Your task to perform on an android device: Open Google Chrome and open the bookmarks view Image 0: 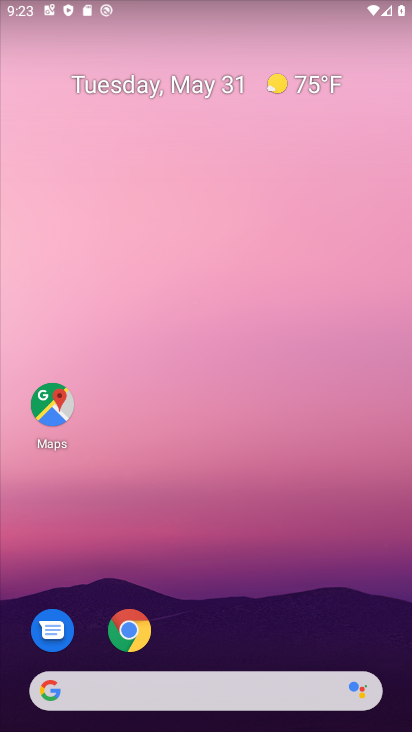
Step 0: drag from (190, 658) to (268, 175)
Your task to perform on an android device: Open Google Chrome and open the bookmarks view Image 1: 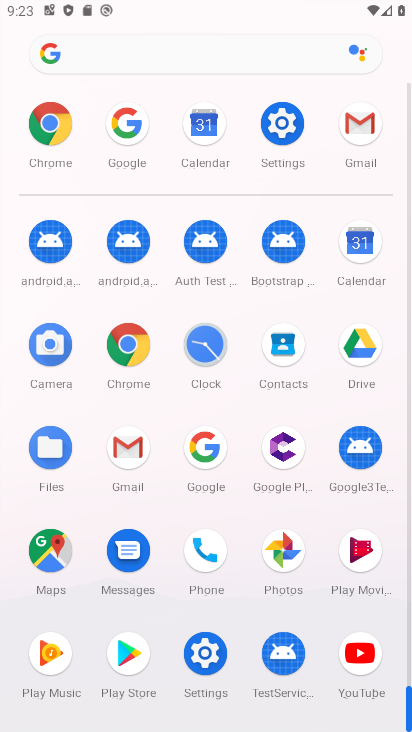
Step 1: click (132, 355)
Your task to perform on an android device: Open Google Chrome and open the bookmarks view Image 2: 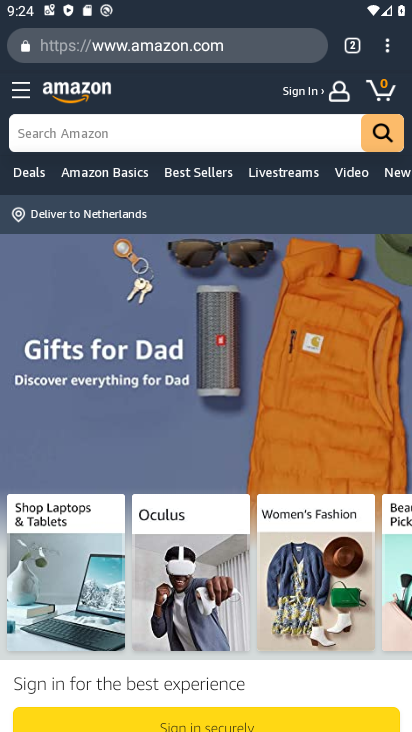
Step 2: click (389, 53)
Your task to perform on an android device: Open Google Chrome and open the bookmarks view Image 3: 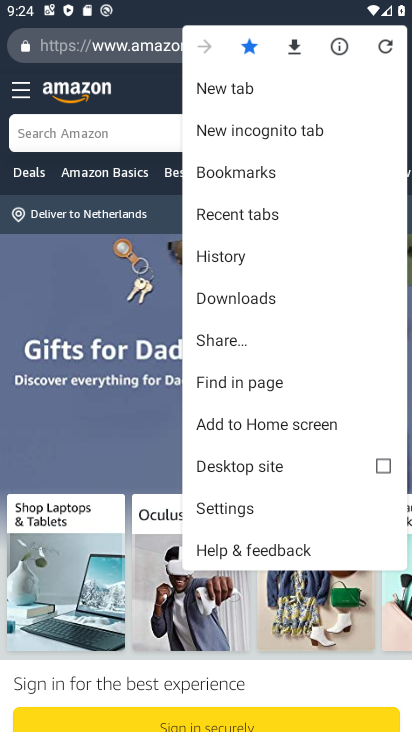
Step 3: click (268, 180)
Your task to perform on an android device: Open Google Chrome and open the bookmarks view Image 4: 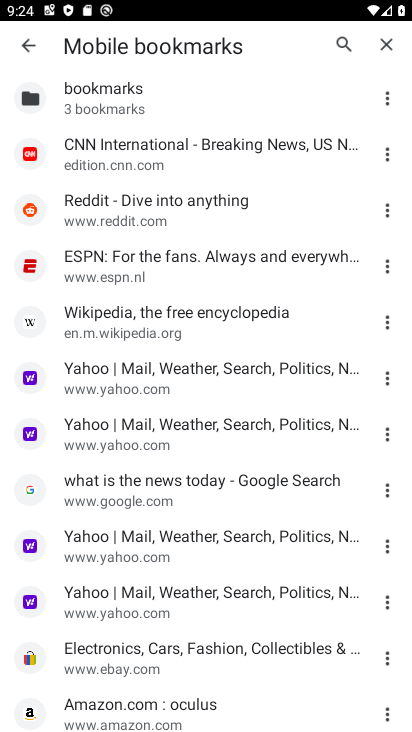
Step 4: click (173, 490)
Your task to perform on an android device: Open Google Chrome and open the bookmarks view Image 5: 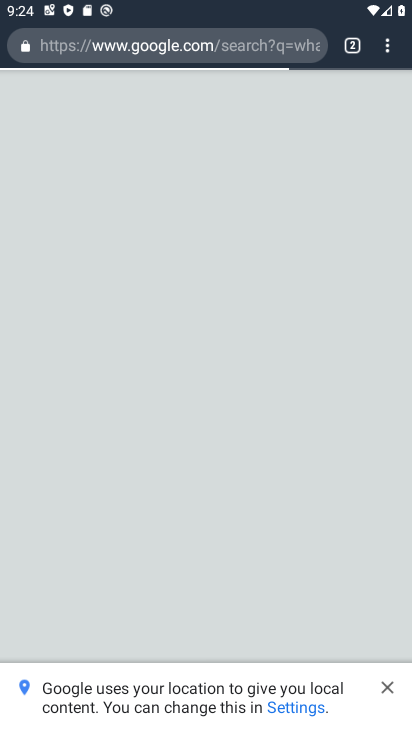
Step 5: task complete